Your task to perform on an android device: add a contact Image 0: 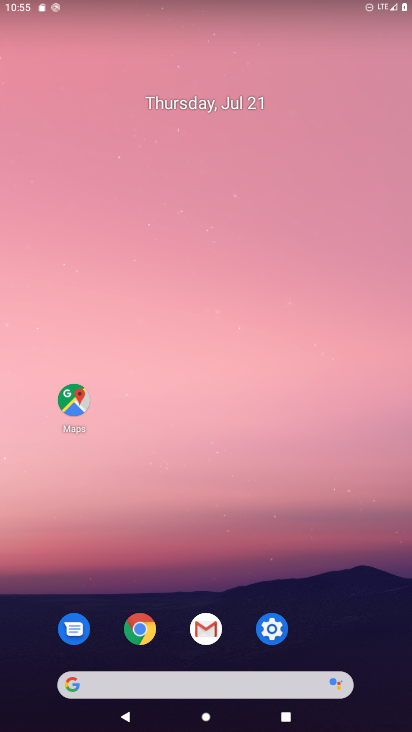
Step 0: drag from (267, 690) to (164, 0)
Your task to perform on an android device: add a contact Image 1: 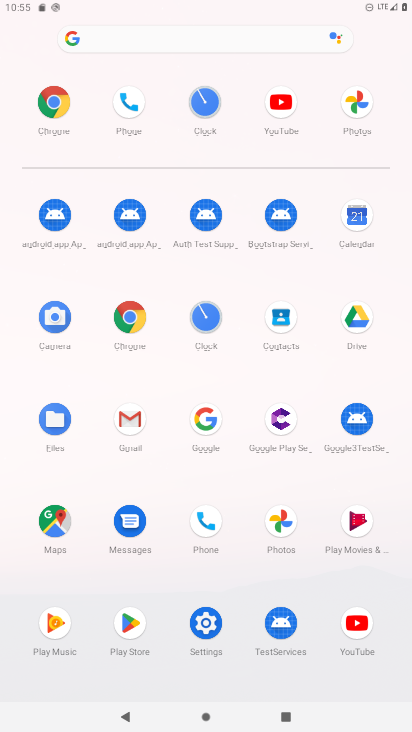
Step 1: click (125, 107)
Your task to perform on an android device: add a contact Image 2: 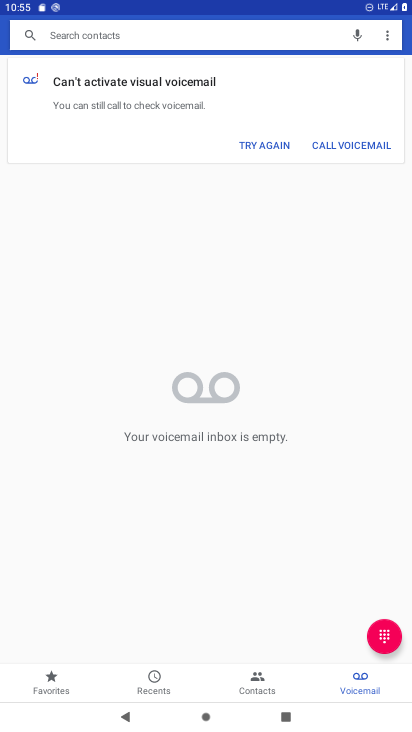
Step 2: click (264, 679)
Your task to perform on an android device: add a contact Image 3: 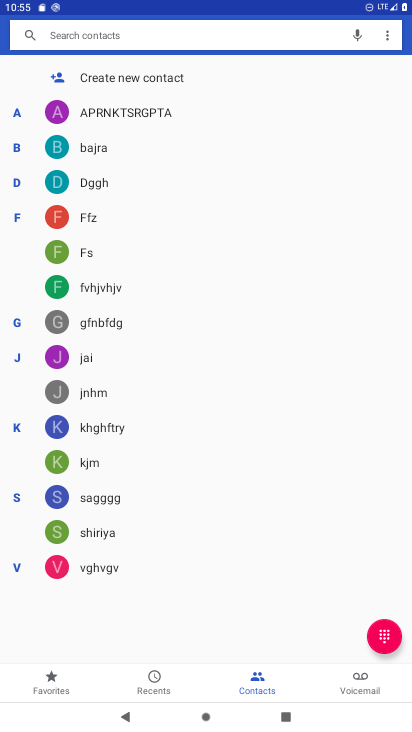
Step 3: click (100, 78)
Your task to perform on an android device: add a contact Image 4: 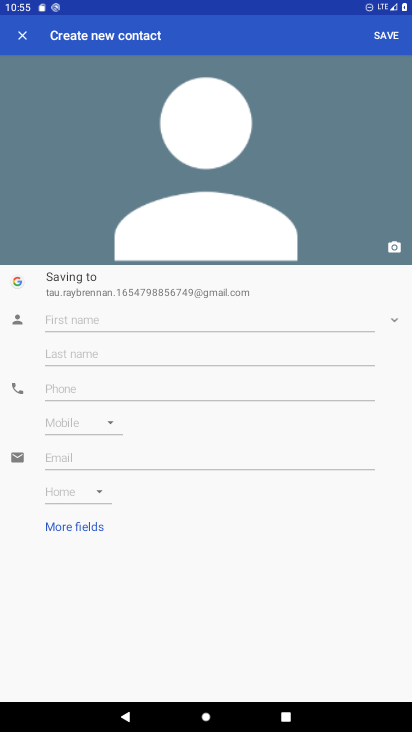
Step 4: click (104, 319)
Your task to perform on an android device: add a contact Image 5: 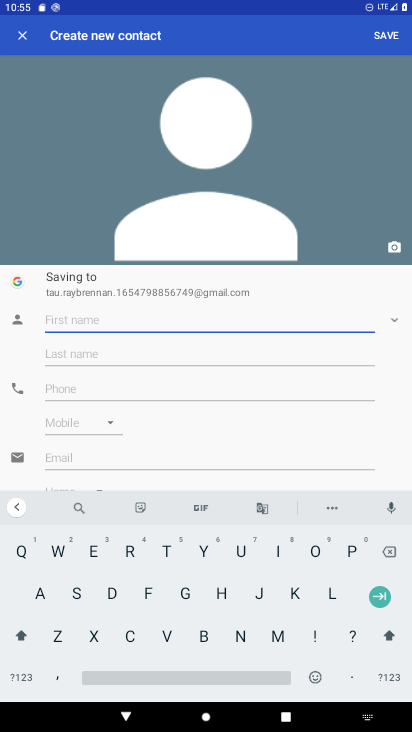
Step 5: click (189, 594)
Your task to perform on an android device: add a contact Image 6: 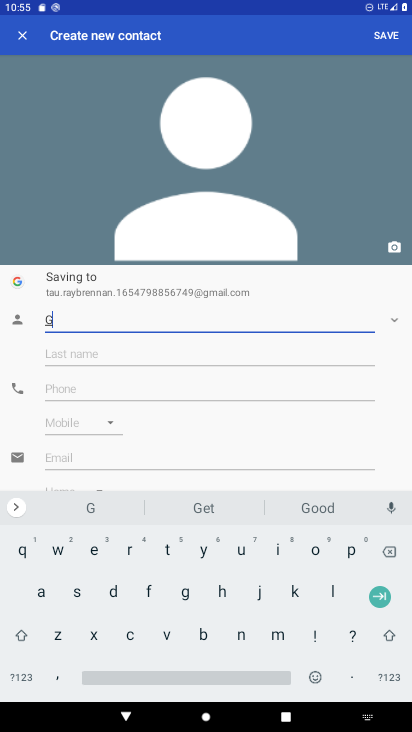
Step 6: click (207, 597)
Your task to perform on an android device: add a contact Image 7: 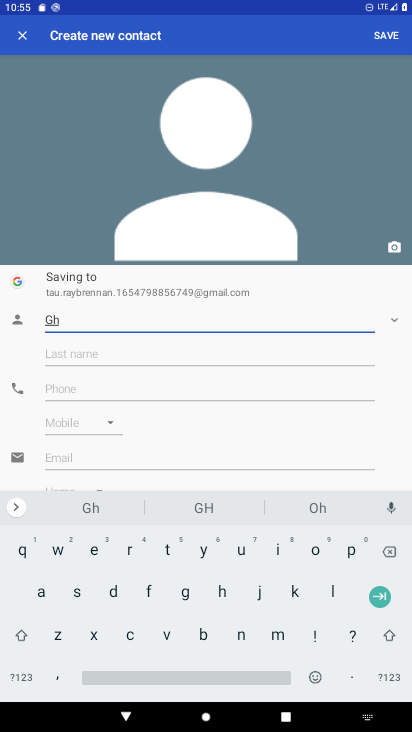
Step 7: click (89, 385)
Your task to perform on an android device: add a contact Image 8: 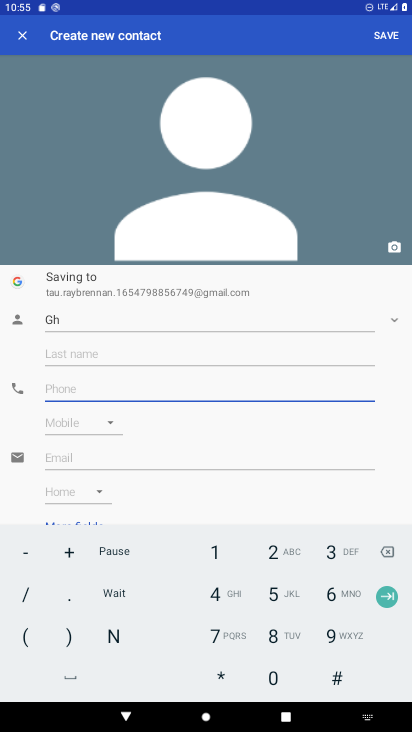
Step 8: click (257, 628)
Your task to perform on an android device: add a contact Image 9: 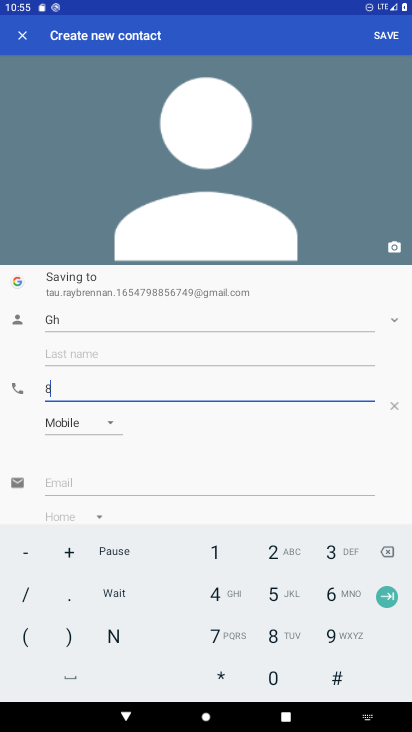
Step 9: click (315, 592)
Your task to perform on an android device: add a contact Image 10: 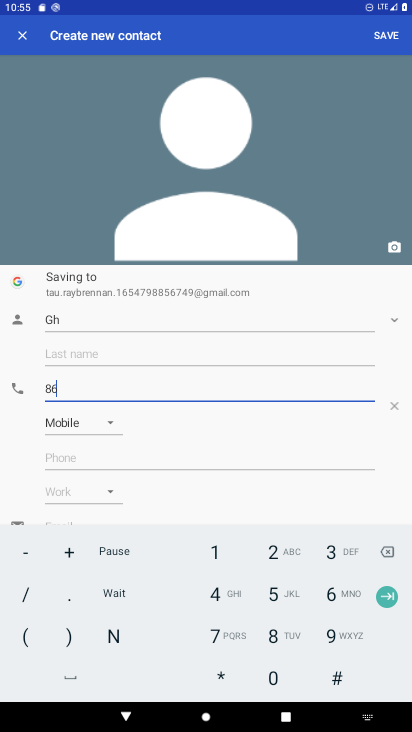
Step 10: click (334, 607)
Your task to perform on an android device: add a contact Image 11: 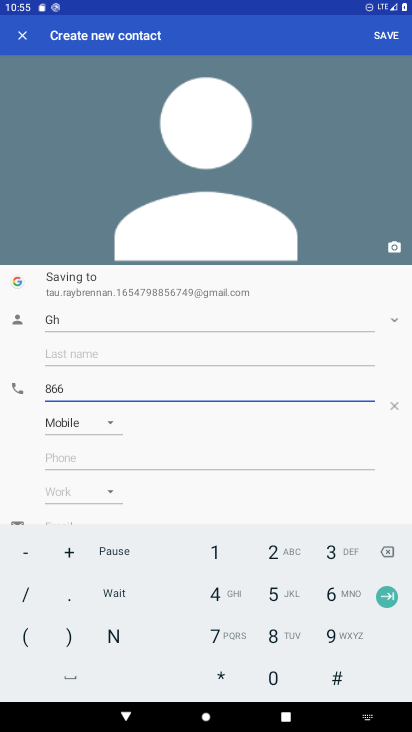
Step 11: click (271, 627)
Your task to perform on an android device: add a contact Image 12: 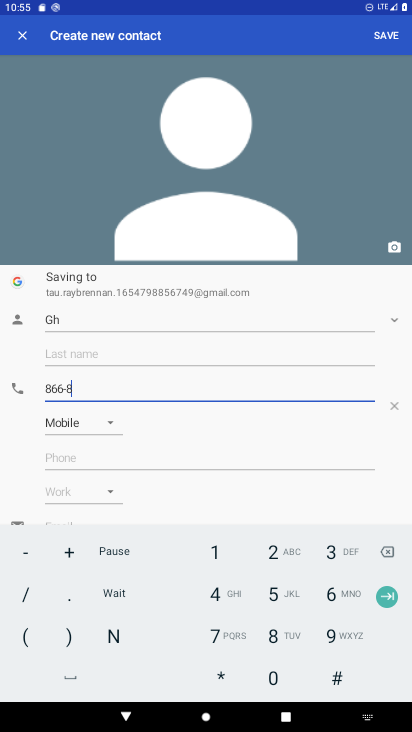
Step 12: click (254, 631)
Your task to perform on an android device: add a contact Image 13: 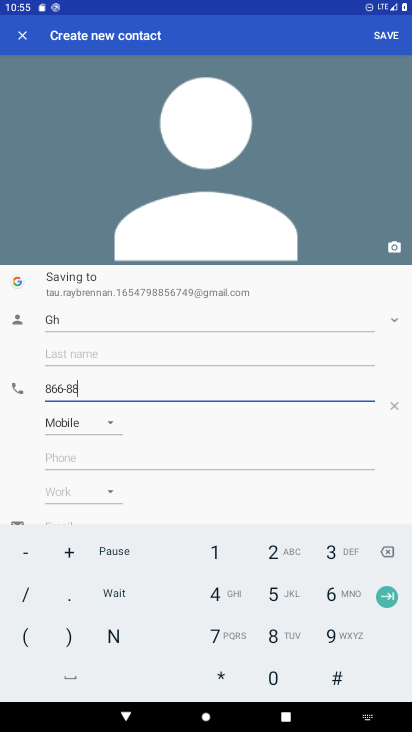
Step 13: click (232, 631)
Your task to perform on an android device: add a contact Image 14: 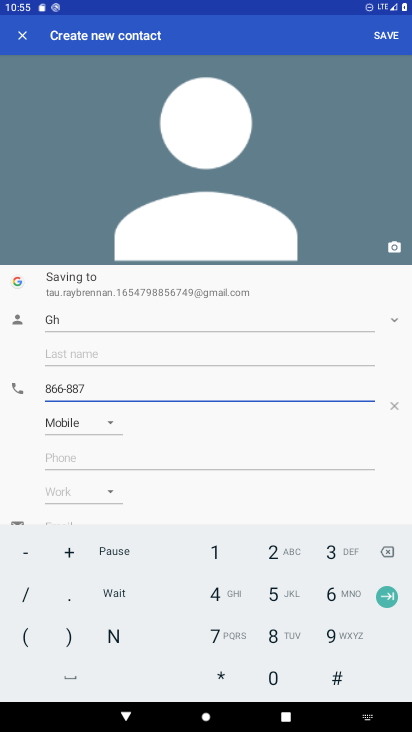
Step 14: click (251, 606)
Your task to perform on an android device: add a contact Image 15: 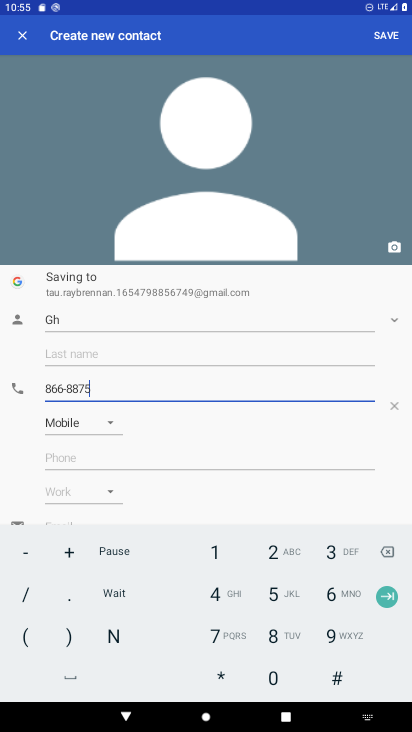
Step 15: click (382, 35)
Your task to perform on an android device: add a contact Image 16: 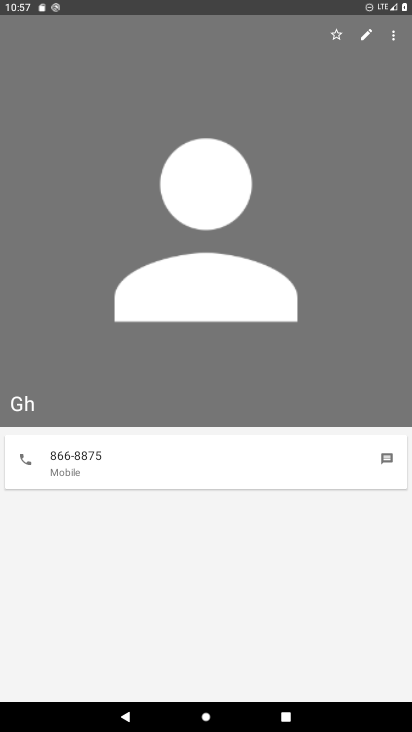
Step 16: task complete